Your task to perform on an android device: turn off sleep mode Image 0: 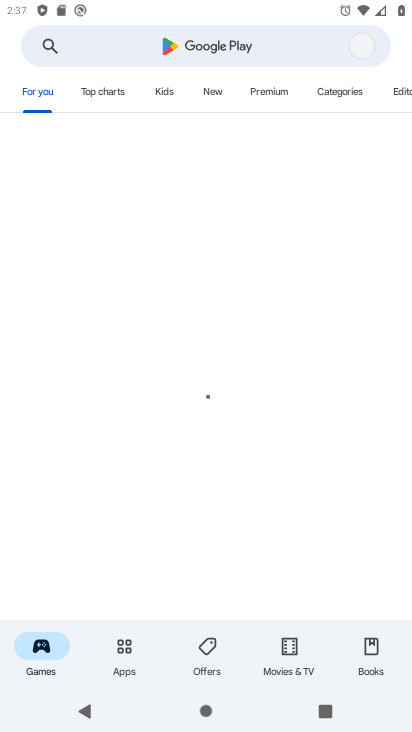
Step 0: press home button
Your task to perform on an android device: turn off sleep mode Image 1: 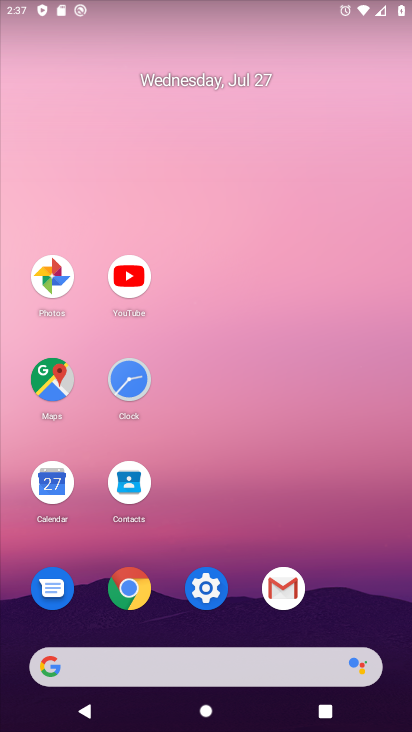
Step 1: click (210, 588)
Your task to perform on an android device: turn off sleep mode Image 2: 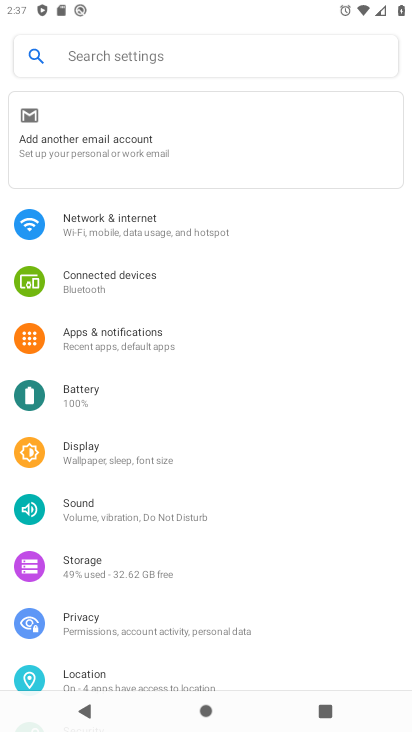
Step 2: click (90, 448)
Your task to perform on an android device: turn off sleep mode Image 3: 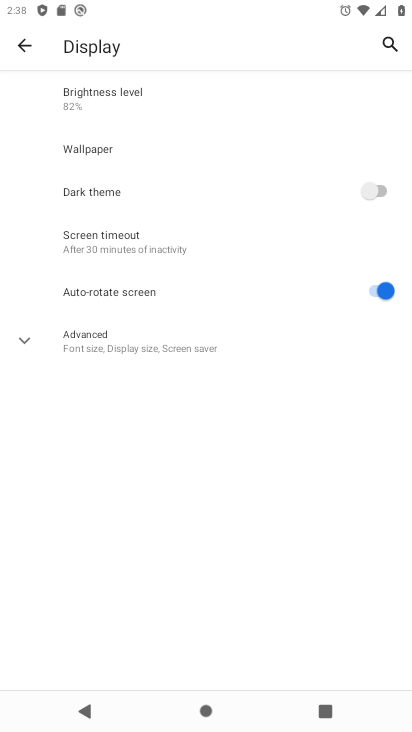
Step 3: task complete